Your task to perform on an android device: Turn off the flashlight Image 0: 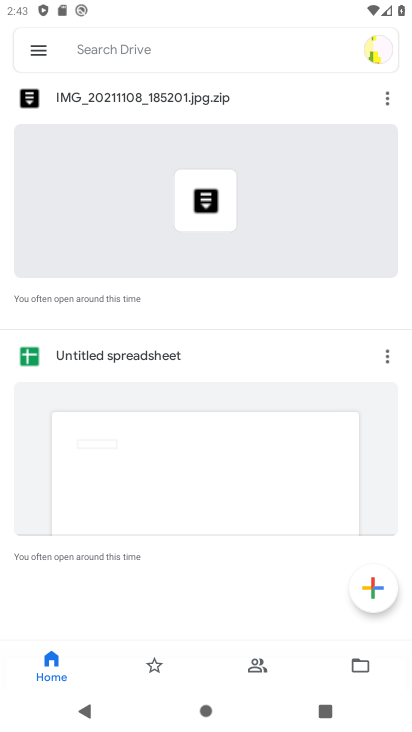
Step 0: press home button
Your task to perform on an android device: Turn off the flashlight Image 1: 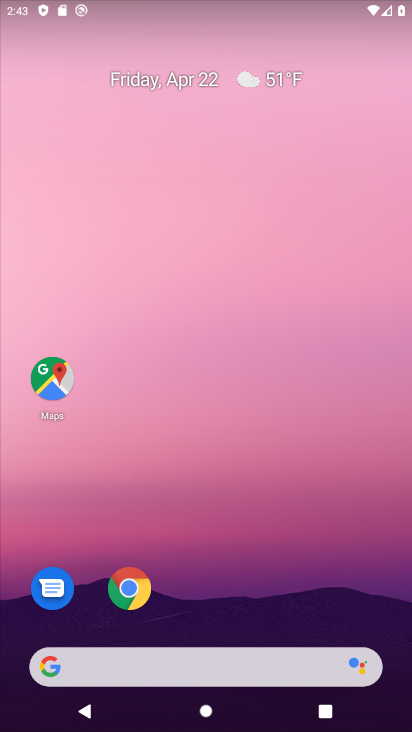
Step 1: task complete